Your task to perform on an android device: turn on airplane mode Image 0: 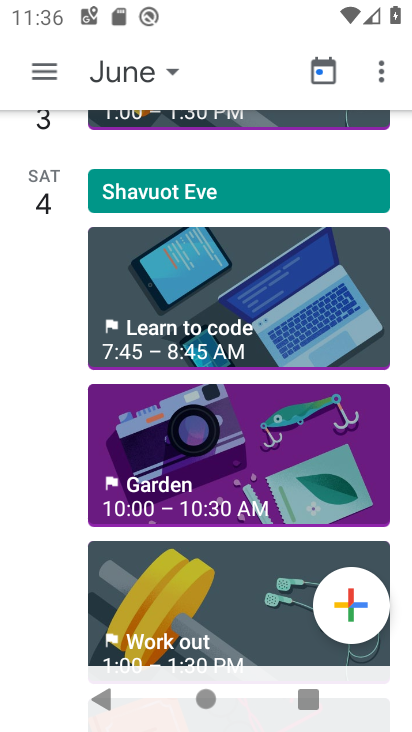
Step 0: press back button
Your task to perform on an android device: turn on airplane mode Image 1: 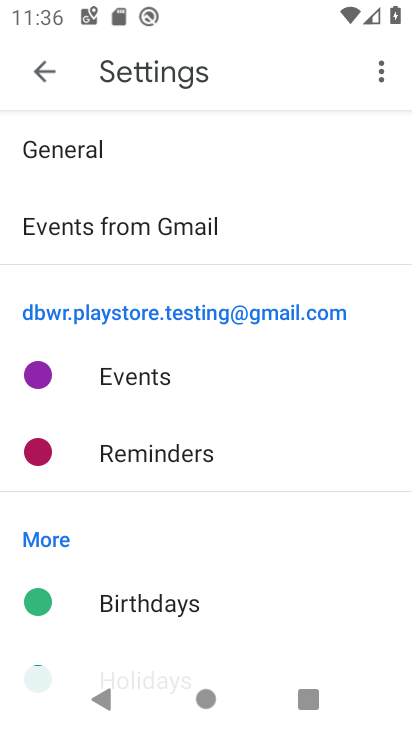
Step 1: press home button
Your task to perform on an android device: turn on airplane mode Image 2: 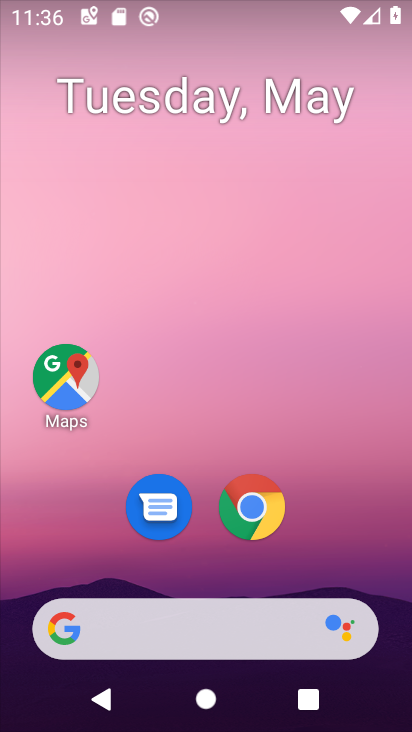
Step 2: drag from (251, 643) to (238, 87)
Your task to perform on an android device: turn on airplane mode Image 3: 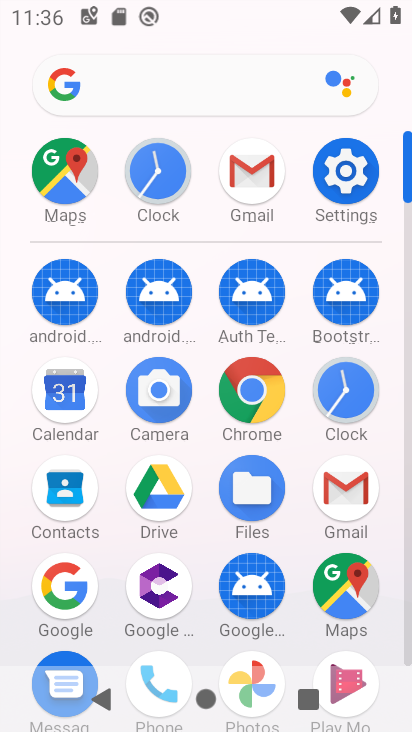
Step 3: click (351, 157)
Your task to perform on an android device: turn on airplane mode Image 4: 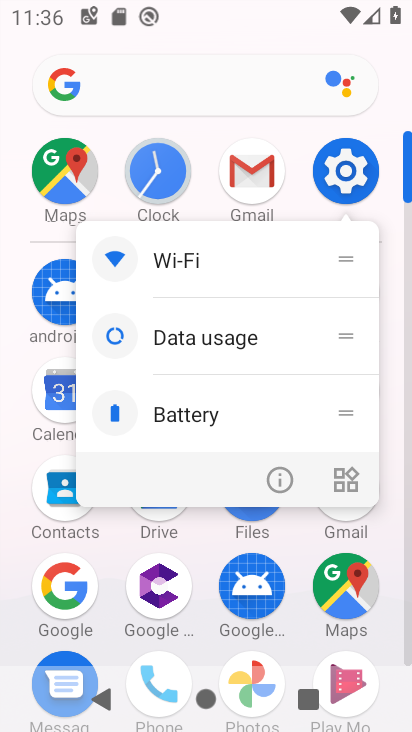
Step 4: click (351, 154)
Your task to perform on an android device: turn on airplane mode Image 5: 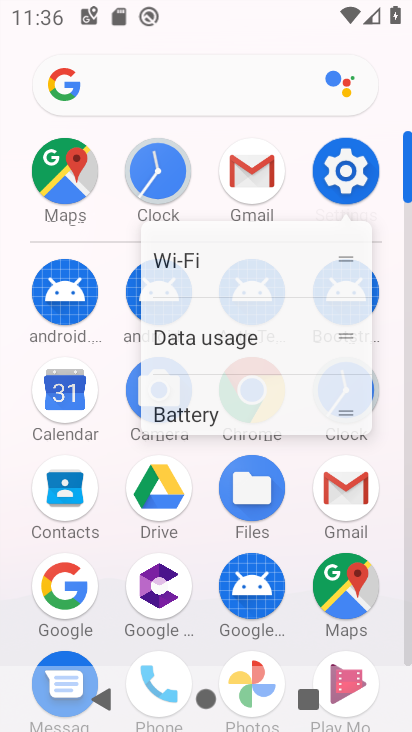
Step 5: click (351, 154)
Your task to perform on an android device: turn on airplane mode Image 6: 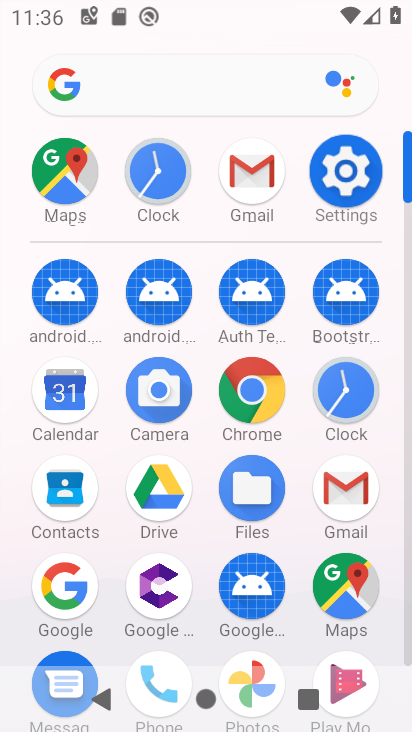
Step 6: click (347, 159)
Your task to perform on an android device: turn on airplane mode Image 7: 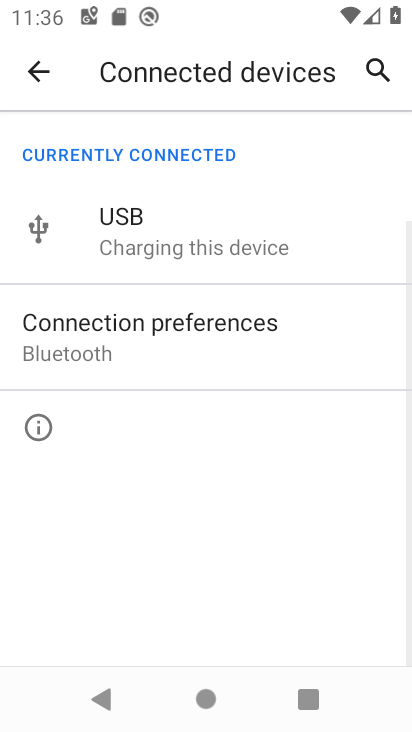
Step 7: click (43, 65)
Your task to perform on an android device: turn on airplane mode Image 8: 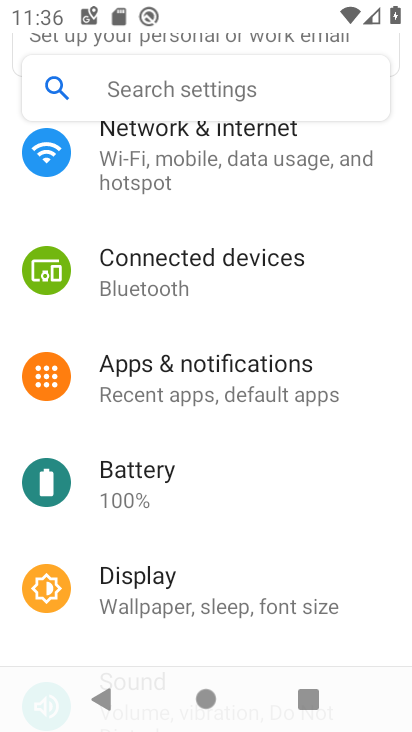
Step 8: click (177, 171)
Your task to perform on an android device: turn on airplane mode Image 9: 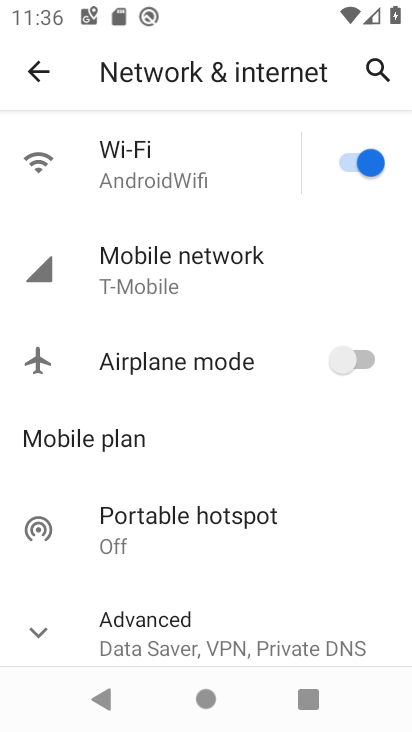
Step 9: click (346, 352)
Your task to perform on an android device: turn on airplane mode Image 10: 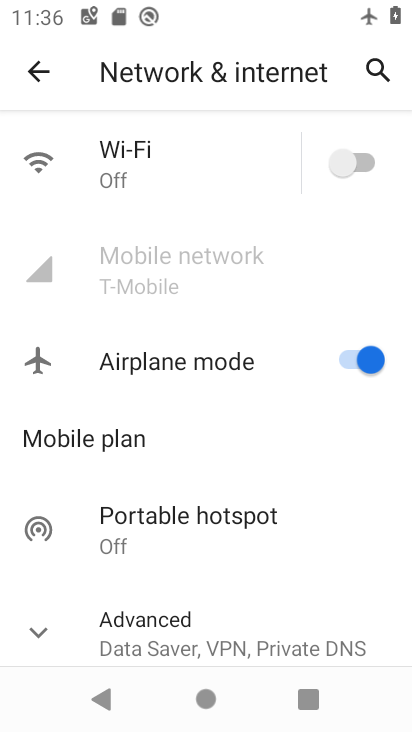
Step 10: task complete